Your task to perform on an android device: Is it going to rain tomorrow? Image 0: 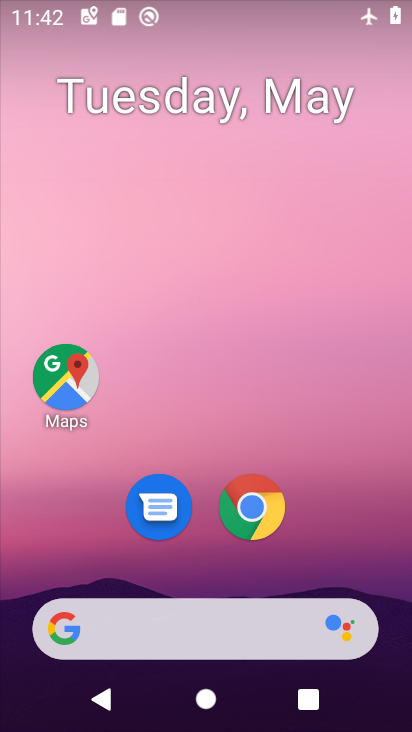
Step 0: drag from (0, 236) to (403, 562)
Your task to perform on an android device: Is it going to rain tomorrow? Image 1: 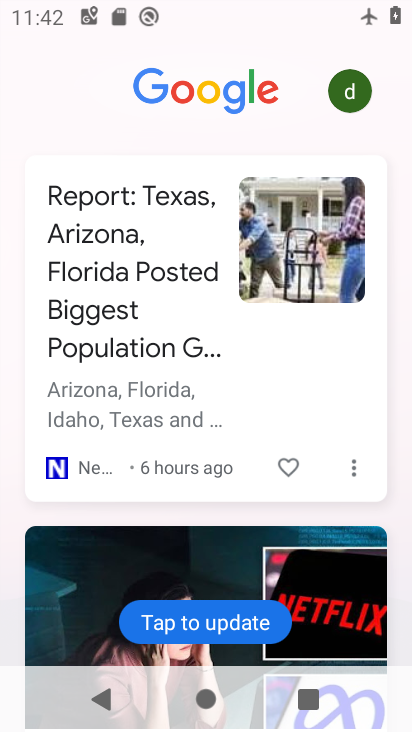
Step 1: task complete